Your task to perform on an android device: turn on wifi Image 0: 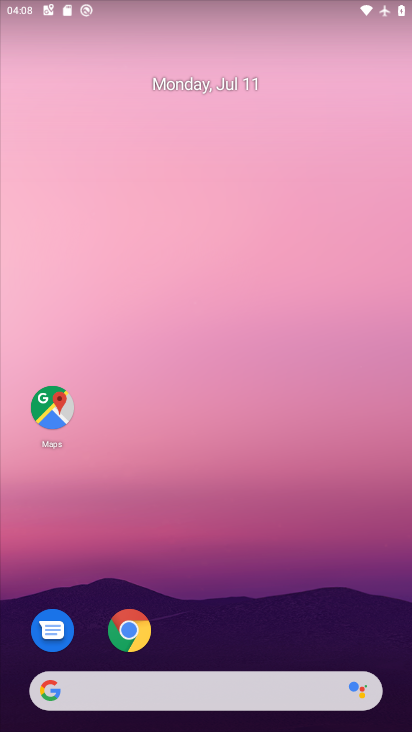
Step 0: drag from (284, 632) to (142, 88)
Your task to perform on an android device: turn on wifi Image 1: 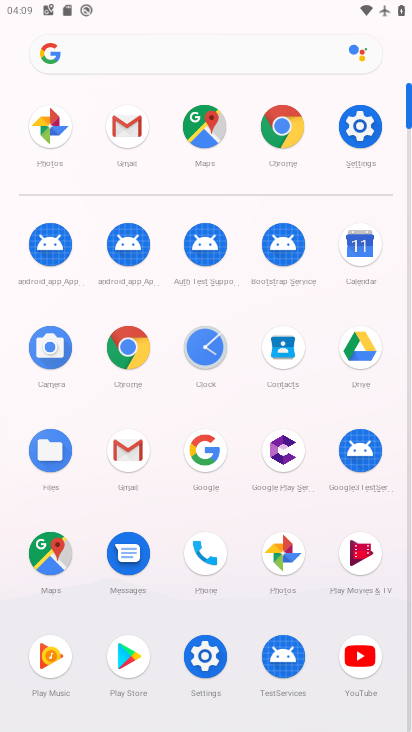
Step 1: click (345, 153)
Your task to perform on an android device: turn on wifi Image 2: 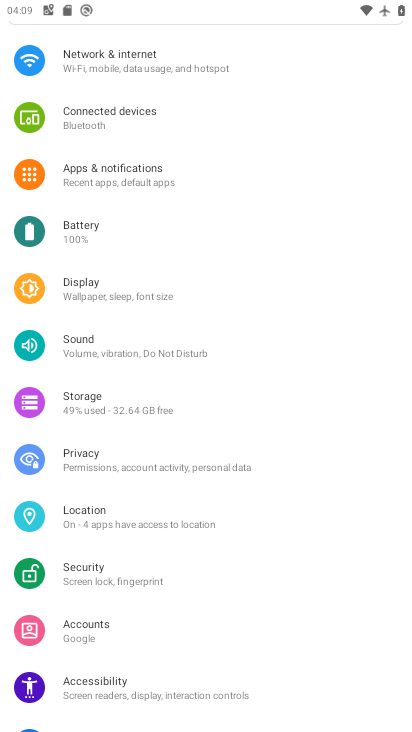
Step 2: click (92, 54)
Your task to perform on an android device: turn on wifi Image 3: 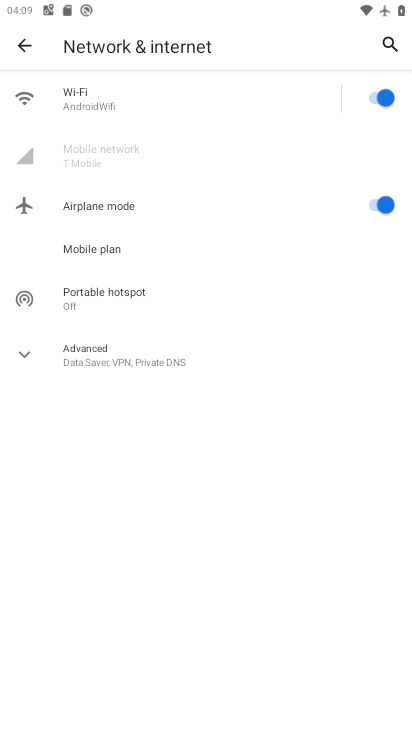
Step 3: task complete